Your task to perform on an android device: Open the map Image 0: 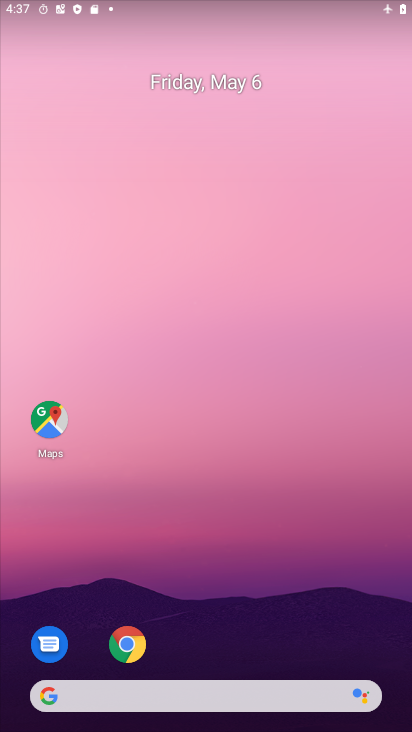
Step 0: drag from (358, 605) to (84, 22)
Your task to perform on an android device: Open the map Image 1: 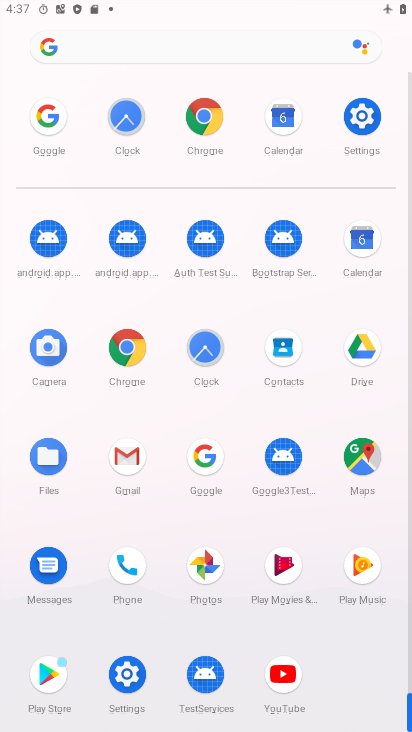
Step 1: click (361, 446)
Your task to perform on an android device: Open the map Image 2: 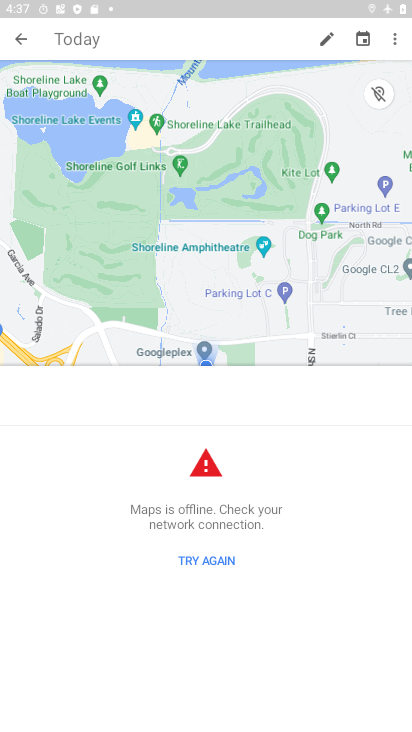
Step 2: task complete